Your task to perform on an android device: Open Android settings Image 0: 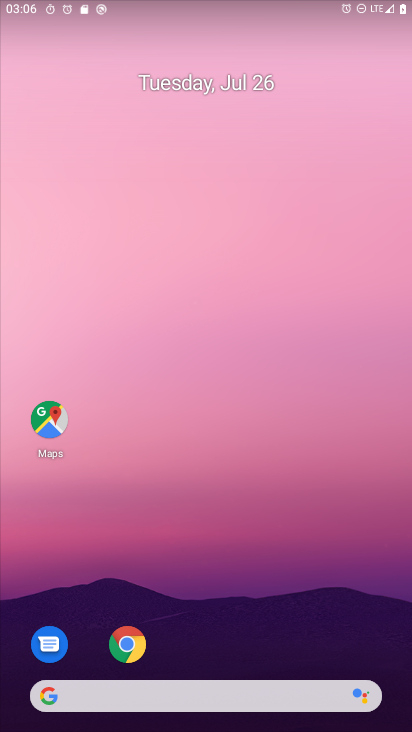
Step 0: drag from (264, 661) to (235, 49)
Your task to perform on an android device: Open Android settings Image 1: 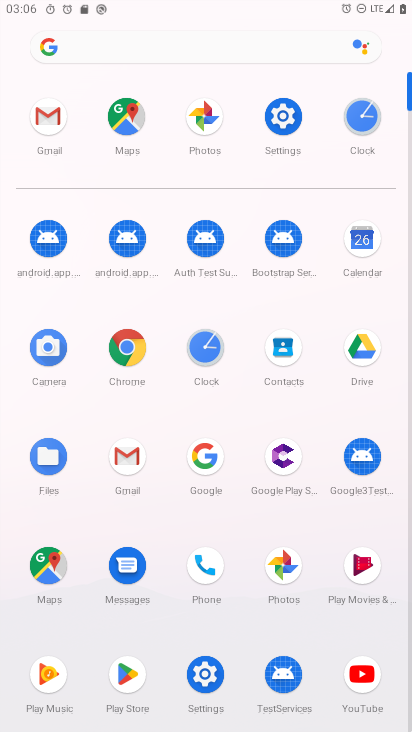
Step 1: click (279, 122)
Your task to perform on an android device: Open Android settings Image 2: 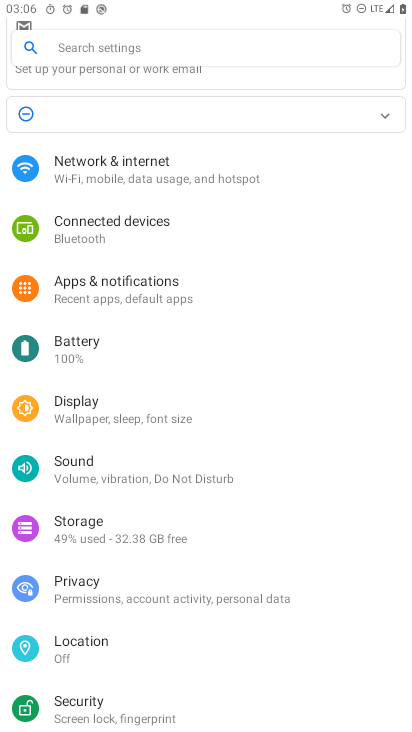
Step 2: task complete